Your task to perform on an android device: clear history in the chrome app Image 0: 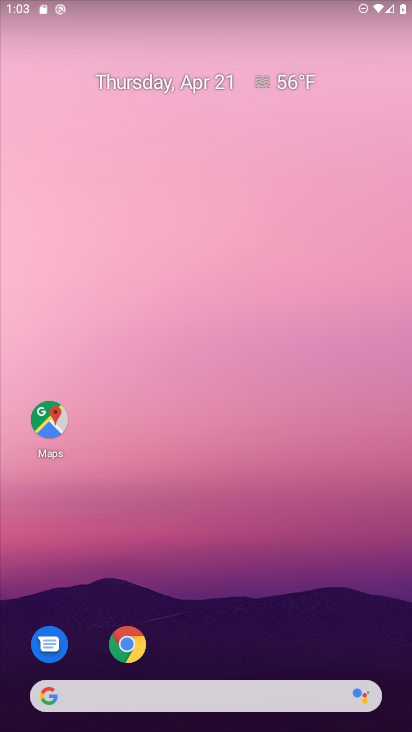
Step 0: click (128, 646)
Your task to perform on an android device: clear history in the chrome app Image 1: 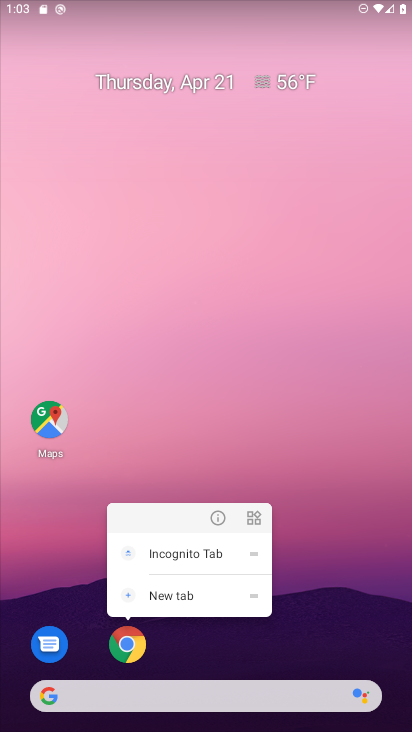
Step 1: click (214, 528)
Your task to perform on an android device: clear history in the chrome app Image 2: 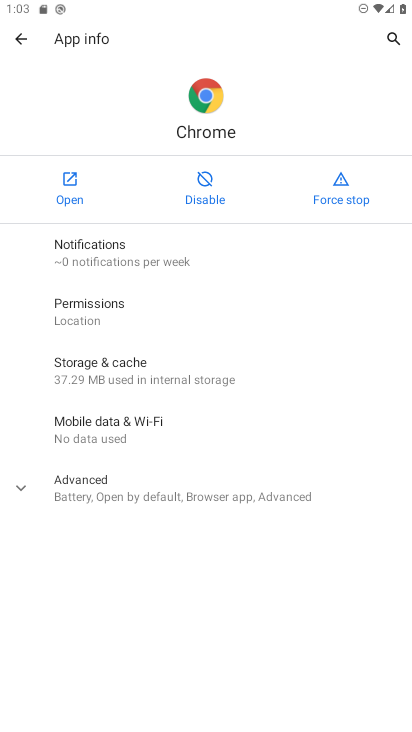
Step 2: click (73, 170)
Your task to perform on an android device: clear history in the chrome app Image 3: 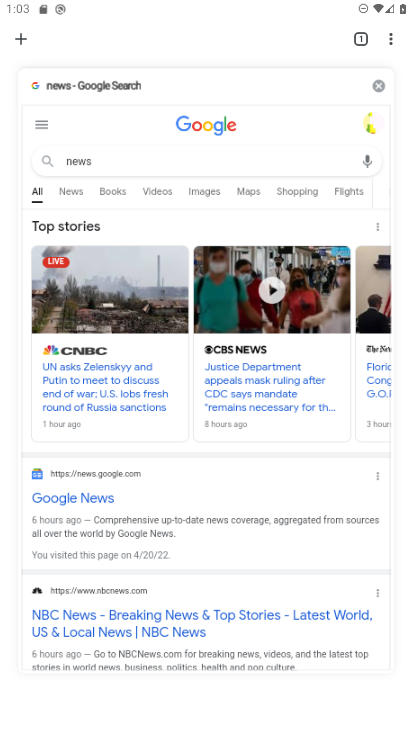
Step 3: click (392, 43)
Your task to perform on an android device: clear history in the chrome app Image 4: 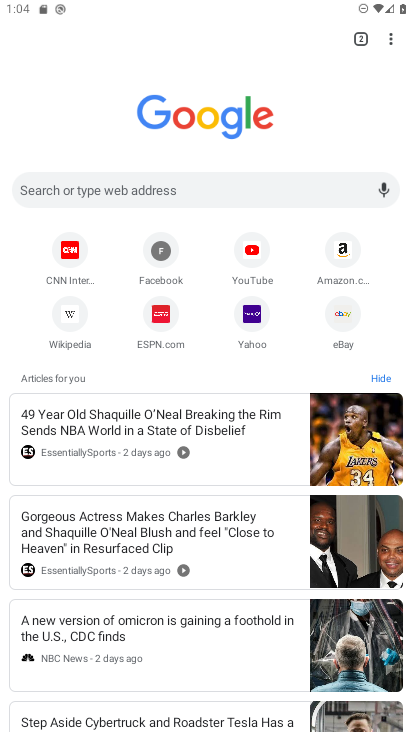
Step 4: click (392, 38)
Your task to perform on an android device: clear history in the chrome app Image 5: 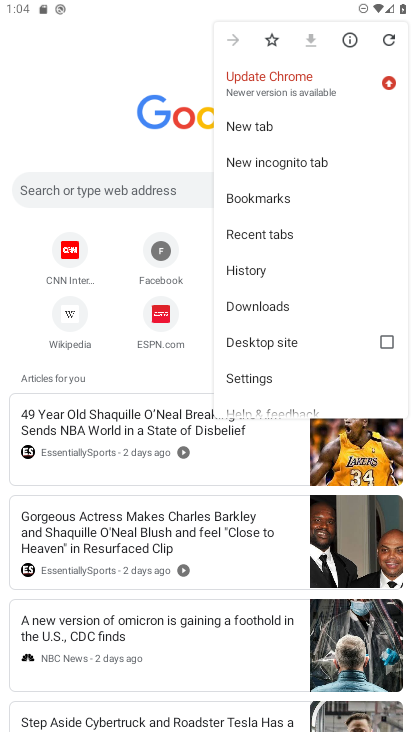
Step 5: click (270, 275)
Your task to perform on an android device: clear history in the chrome app Image 6: 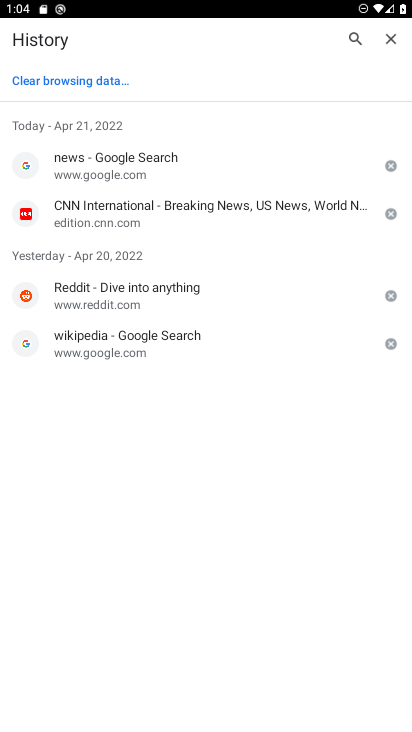
Step 6: click (89, 88)
Your task to perform on an android device: clear history in the chrome app Image 7: 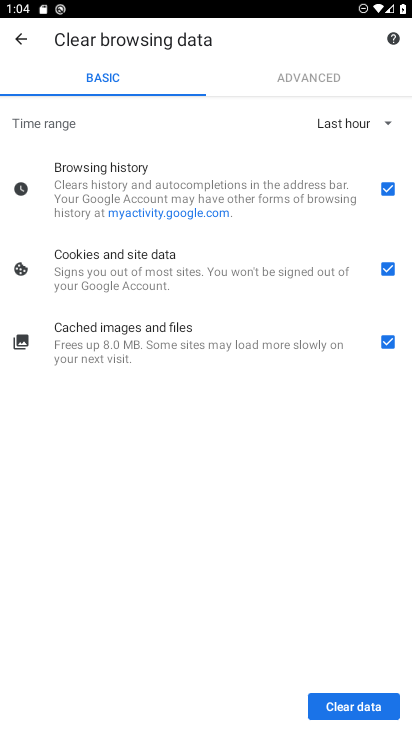
Step 7: click (348, 709)
Your task to perform on an android device: clear history in the chrome app Image 8: 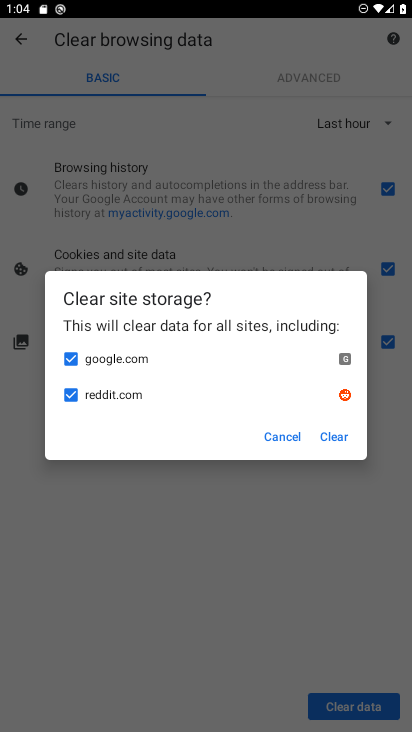
Step 8: click (292, 437)
Your task to perform on an android device: clear history in the chrome app Image 9: 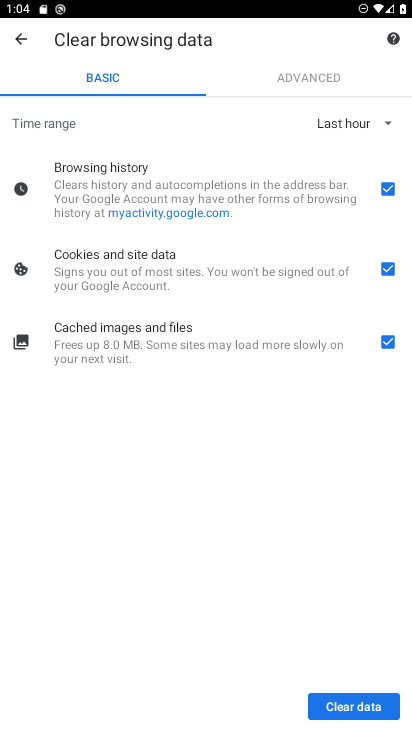
Step 9: click (326, 79)
Your task to perform on an android device: clear history in the chrome app Image 10: 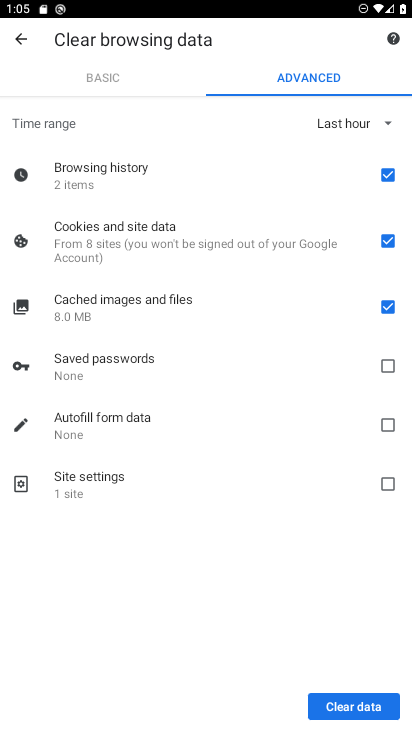
Step 10: click (86, 82)
Your task to perform on an android device: clear history in the chrome app Image 11: 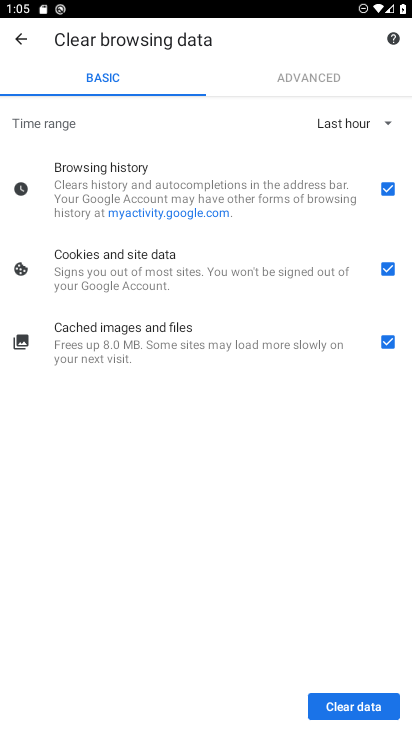
Step 11: click (386, 187)
Your task to perform on an android device: clear history in the chrome app Image 12: 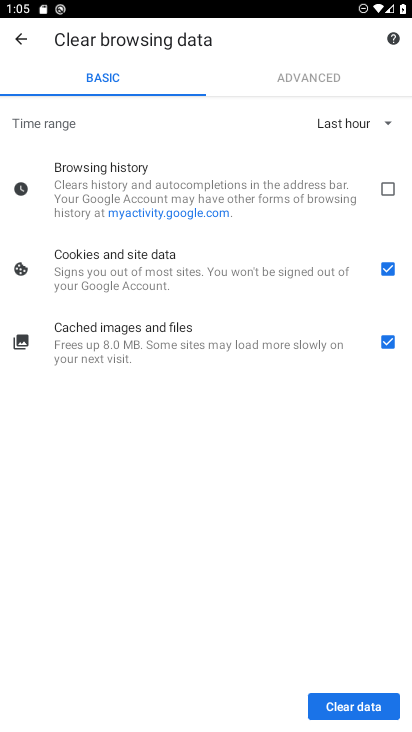
Step 12: click (357, 714)
Your task to perform on an android device: clear history in the chrome app Image 13: 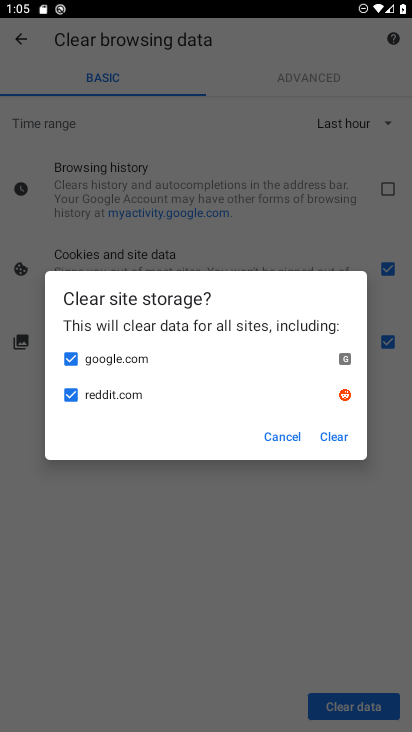
Step 13: click (333, 441)
Your task to perform on an android device: clear history in the chrome app Image 14: 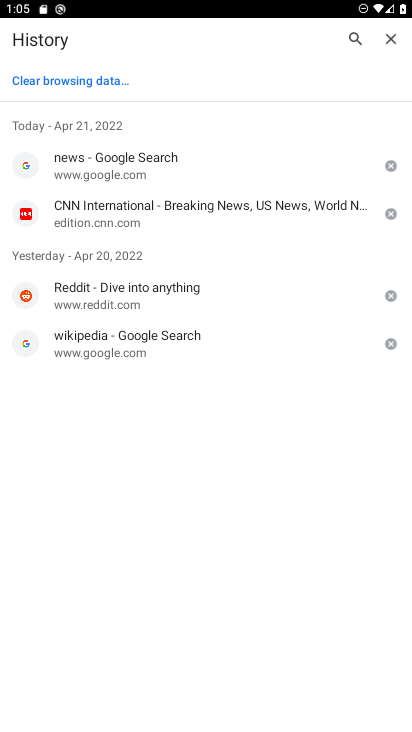
Step 14: task complete